Your task to perform on an android device: What's on my calendar tomorrow? Image 0: 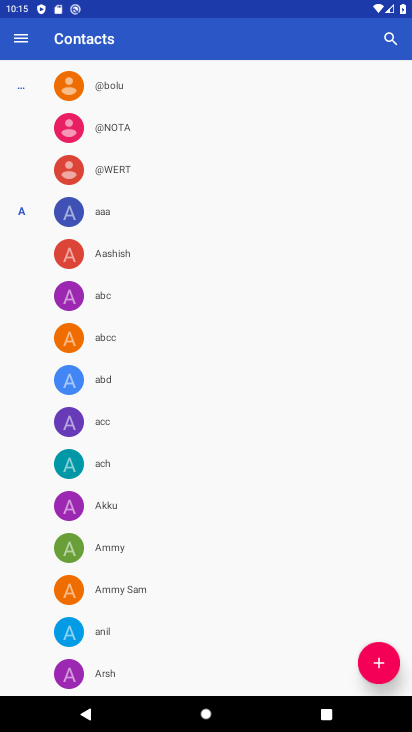
Step 0: press back button
Your task to perform on an android device: What's on my calendar tomorrow? Image 1: 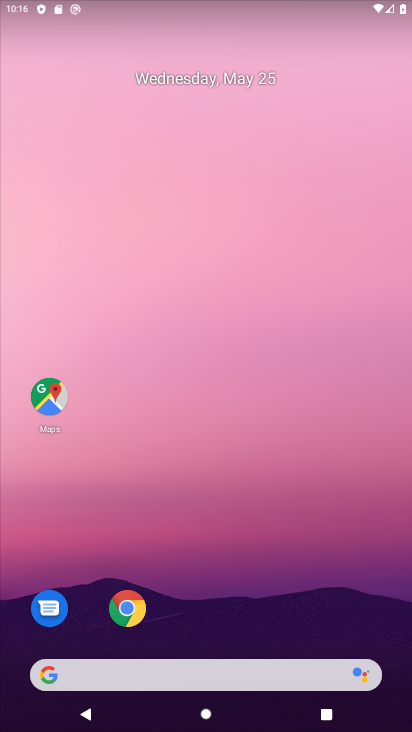
Step 1: drag from (267, 581) to (207, 125)
Your task to perform on an android device: What's on my calendar tomorrow? Image 2: 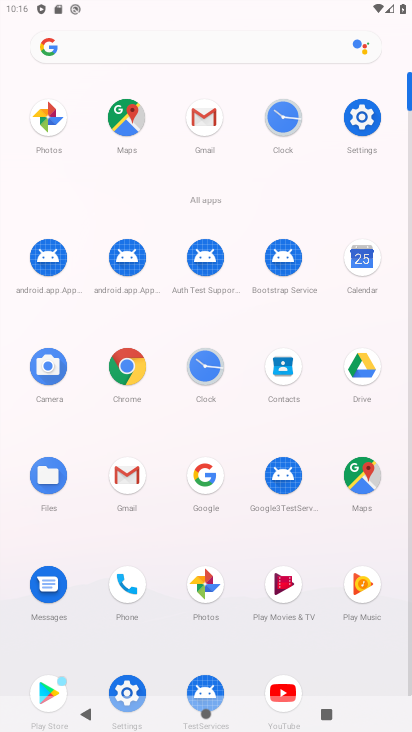
Step 2: click (361, 260)
Your task to perform on an android device: What's on my calendar tomorrow? Image 3: 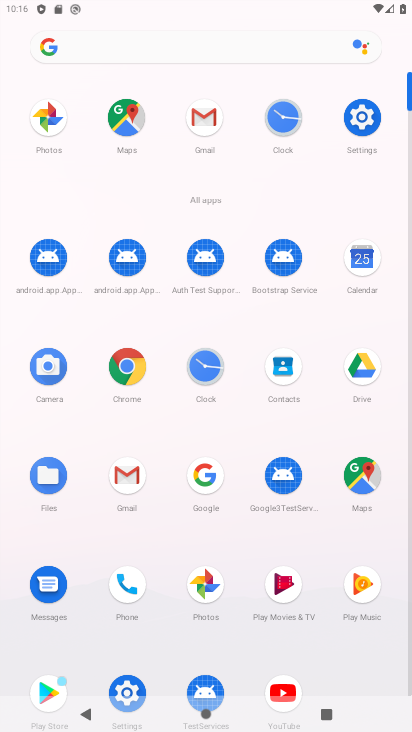
Step 3: click (361, 254)
Your task to perform on an android device: What's on my calendar tomorrow? Image 4: 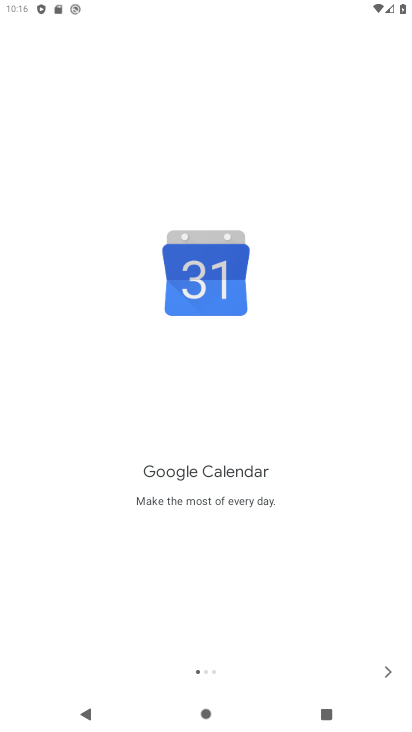
Step 4: click (391, 672)
Your task to perform on an android device: What's on my calendar tomorrow? Image 5: 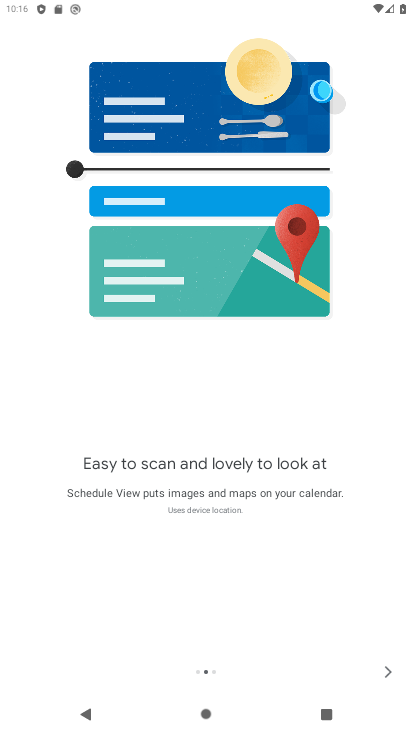
Step 5: click (391, 672)
Your task to perform on an android device: What's on my calendar tomorrow? Image 6: 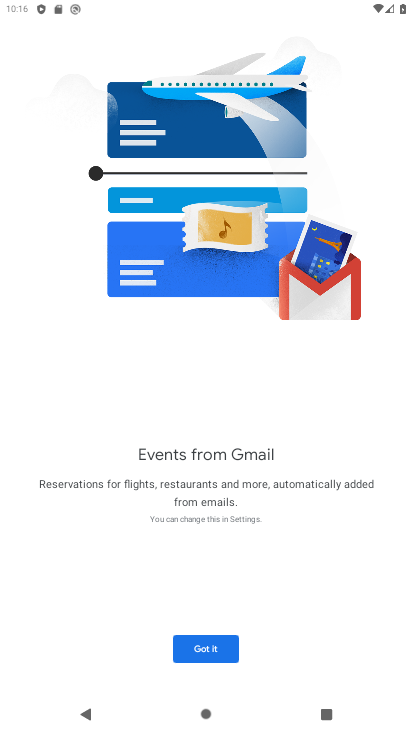
Step 6: click (213, 644)
Your task to perform on an android device: What's on my calendar tomorrow? Image 7: 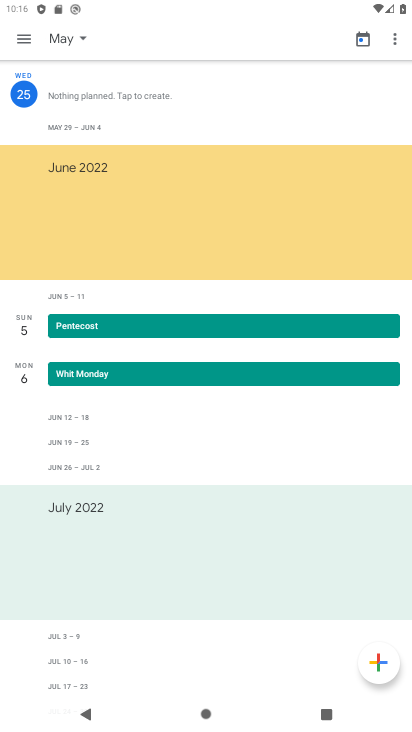
Step 7: click (83, 35)
Your task to perform on an android device: What's on my calendar tomorrow? Image 8: 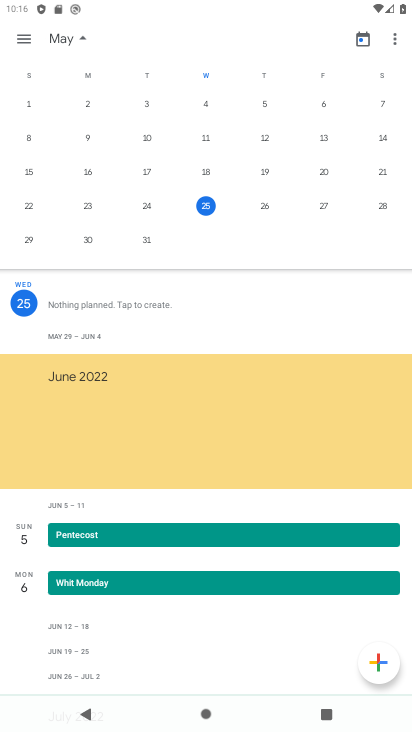
Step 8: click (260, 207)
Your task to perform on an android device: What's on my calendar tomorrow? Image 9: 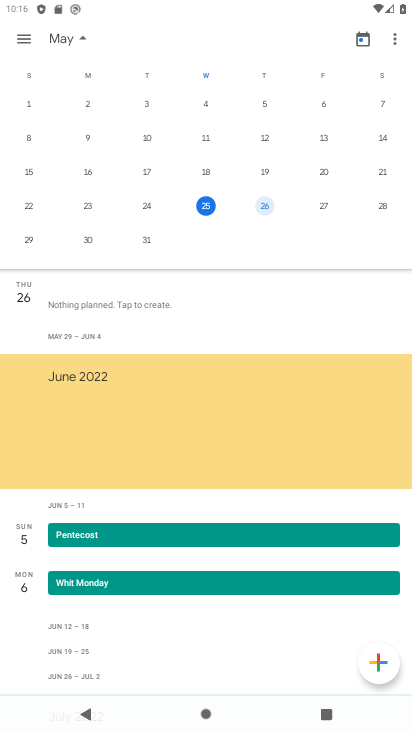
Step 9: click (24, 39)
Your task to perform on an android device: What's on my calendar tomorrow? Image 10: 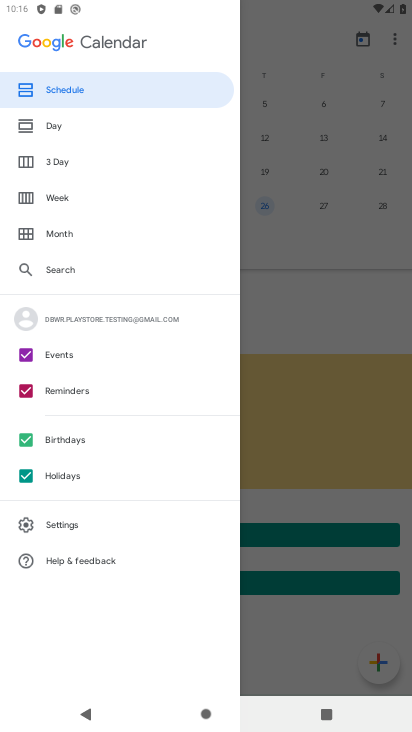
Step 10: click (69, 92)
Your task to perform on an android device: What's on my calendar tomorrow? Image 11: 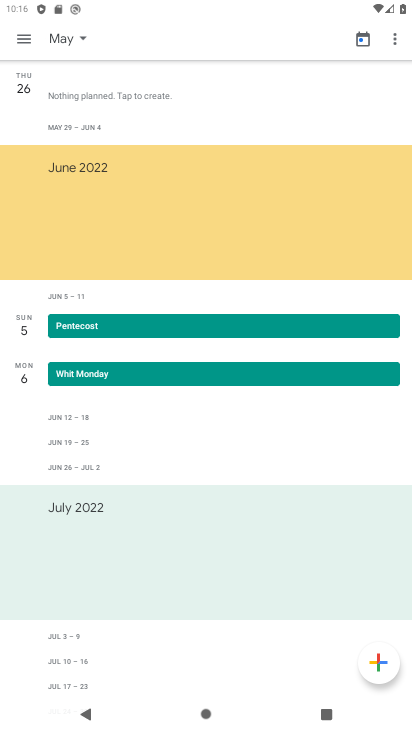
Step 11: task complete